Your task to perform on an android device: turn on the 12-hour format for clock Image 0: 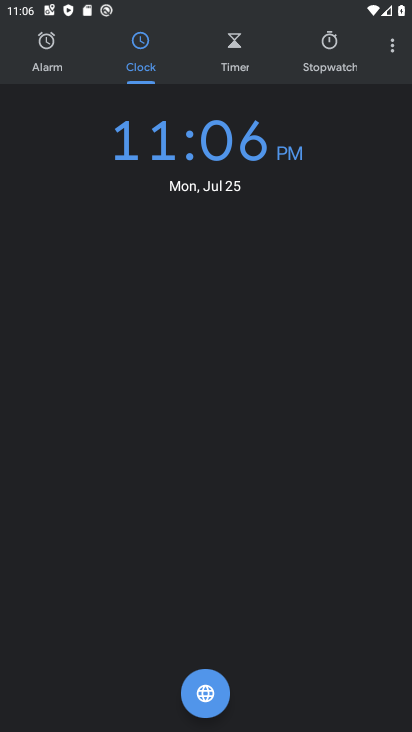
Step 0: press home button
Your task to perform on an android device: turn on the 12-hour format for clock Image 1: 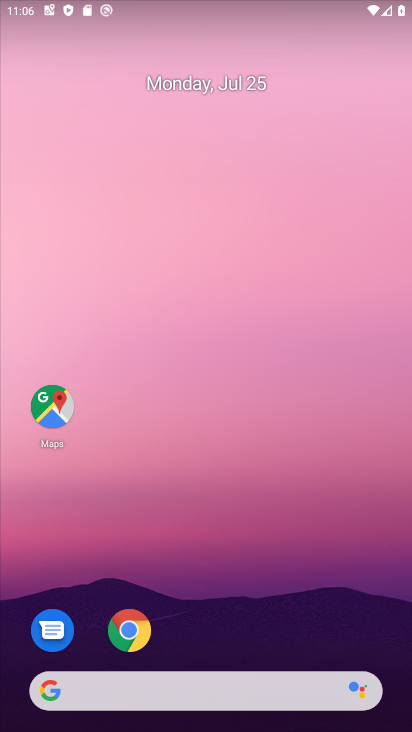
Step 1: drag from (362, 594) to (358, 108)
Your task to perform on an android device: turn on the 12-hour format for clock Image 2: 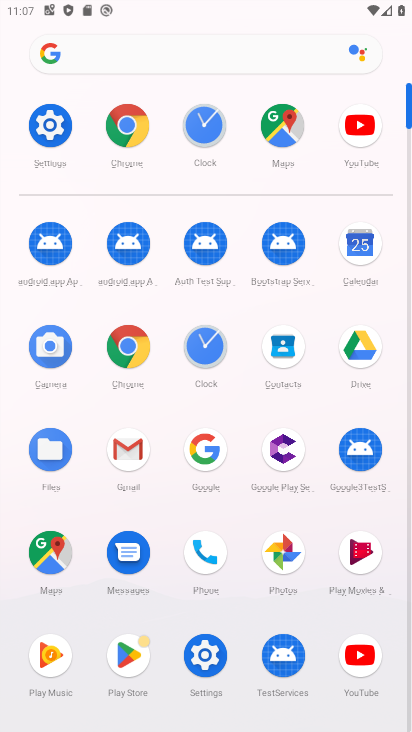
Step 2: click (204, 347)
Your task to perform on an android device: turn on the 12-hour format for clock Image 3: 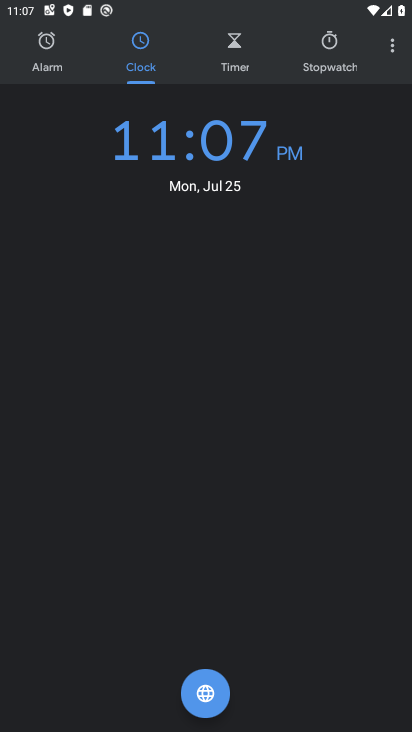
Step 3: click (392, 52)
Your task to perform on an android device: turn on the 12-hour format for clock Image 4: 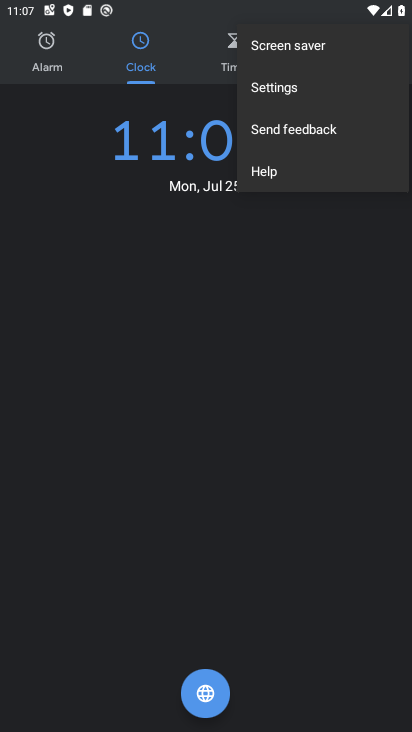
Step 4: click (324, 86)
Your task to perform on an android device: turn on the 12-hour format for clock Image 5: 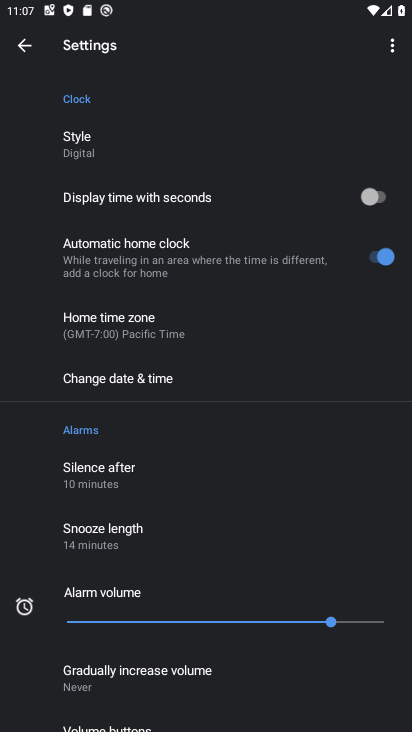
Step 5: drag from (331, 440) to (350, 366)
Your task to perform on an android device: turn on the 12-hour format for clock Image 6: 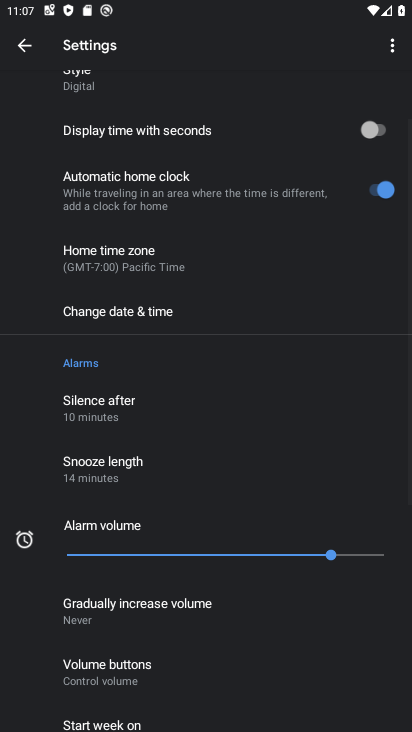
Step 6: drag from (352, 517) to (352, 436)
Your task to perform on an android device: turn on the 12-hour format for clock Image 7: 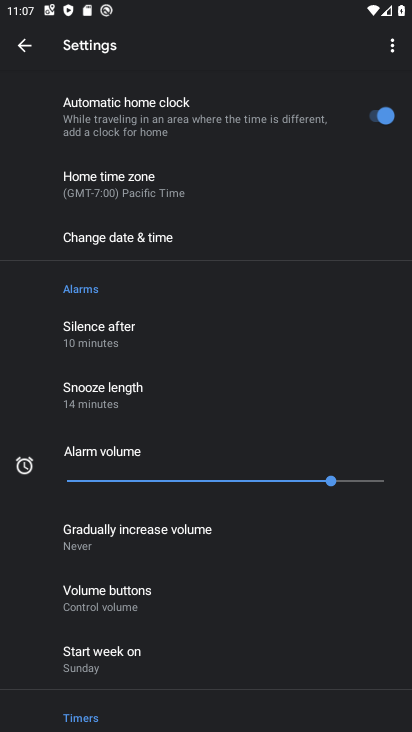
Step 7: drag from (352, 545) to (352, 437)
Your task to perform on an android device: turn on the 12-hour format for clock Image 8: 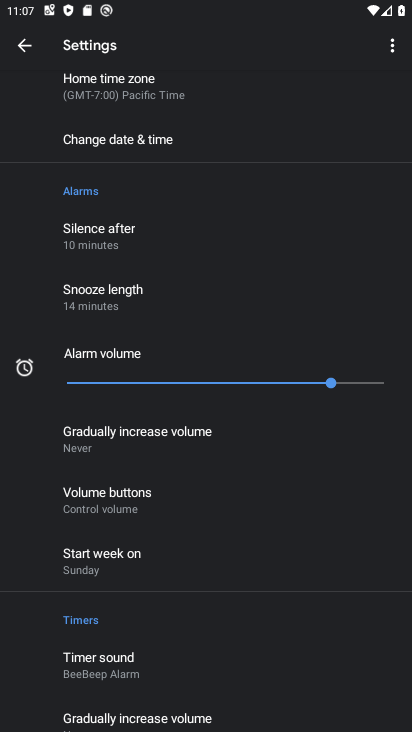
Step 8: drag from (389, 568) to (381, 451)
Your task to perform on an android device: turn on the 12-hour format for clock Image 9: 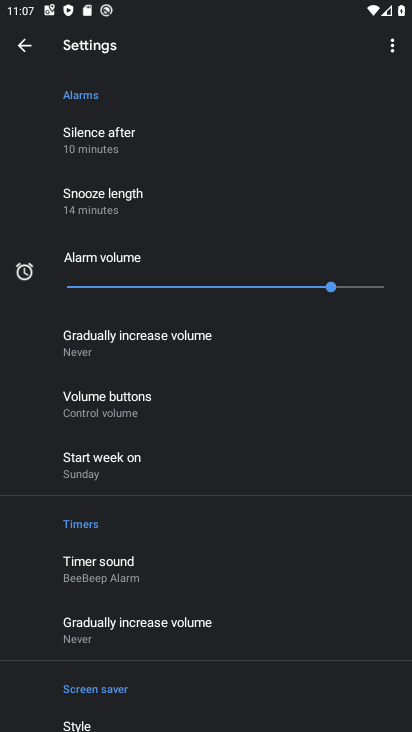
Step 9: drag from (340, 592) to (338, 414)
Your task to perform on an android device: turn on the 12-hour format for clock Image 10: 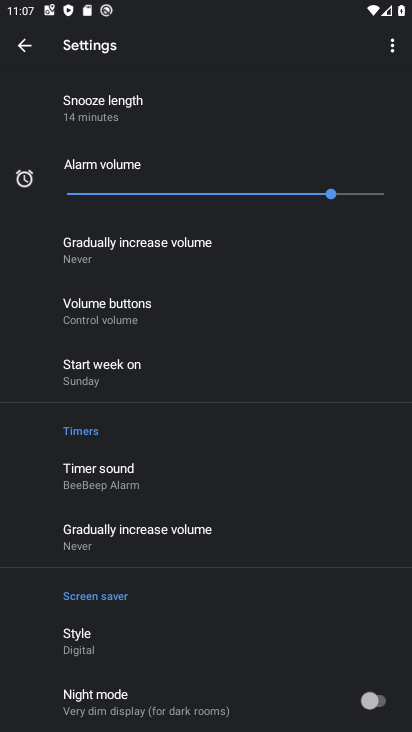
Step 10: drag from (361, 248) to (366, 324)
Your task to perform on an android device: turn on the 12-hour format for clock Image 11: 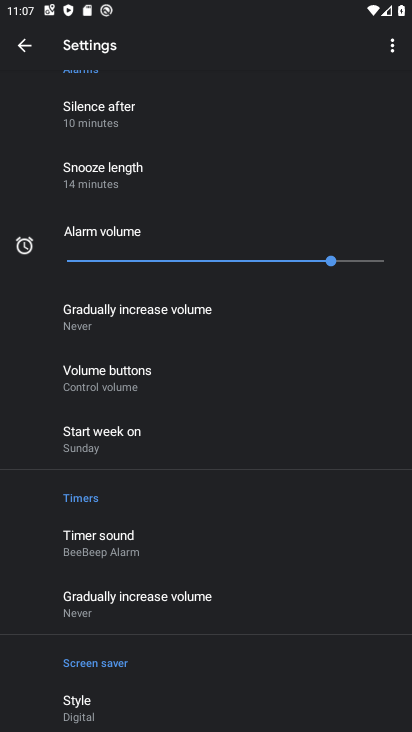
Step 11: drag from (364, 191) to (374, 292)
Your task to perform on an android device: turn on the 12-hour format for clock Image 12: 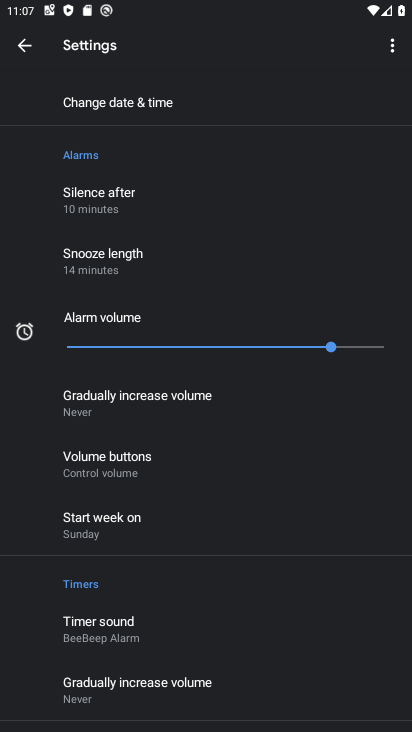
Step 12: drag from (369, 227) to (370, 327)
Your task to perform on an android device: turn on the 12-hour format for clock Image 13: 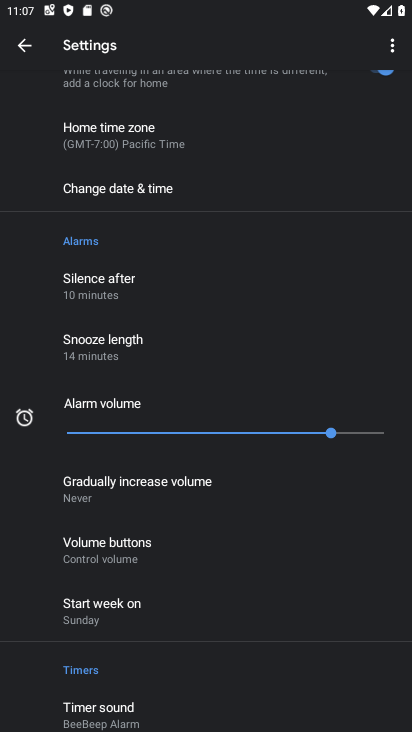
Step 13: drag from (366, 244) to (362, 371)
Your task to perform on an android device: turn on the 12-hour format for clock Image 14: 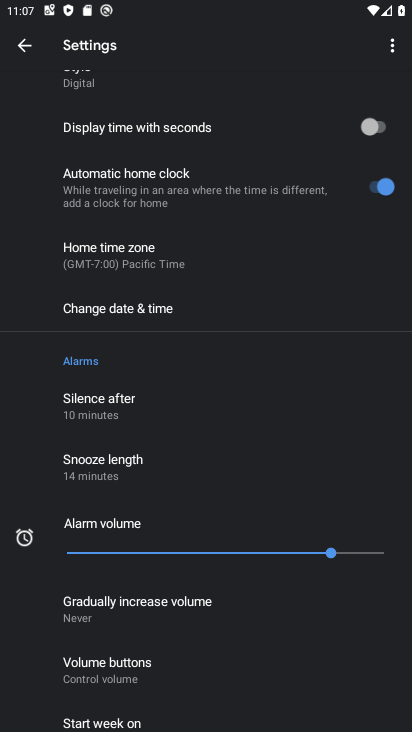
Step 14: click (189, 306)
Your task to perform on an android device: turn on the 12-hour format for clock Image 15: 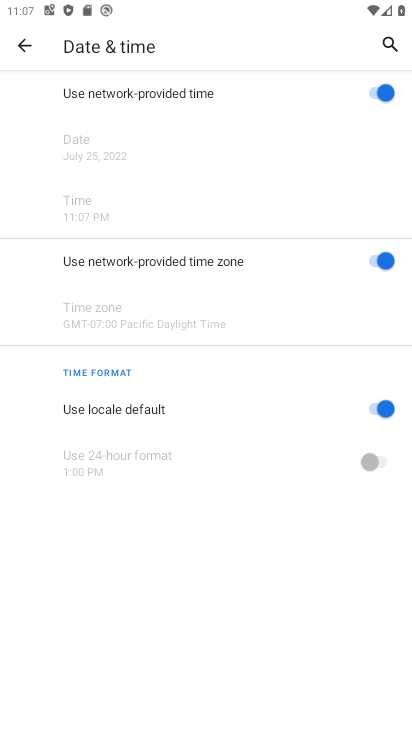
Step 15: task complete